Your task to perform on an android device: turn off translation in the chrome app Image 0: 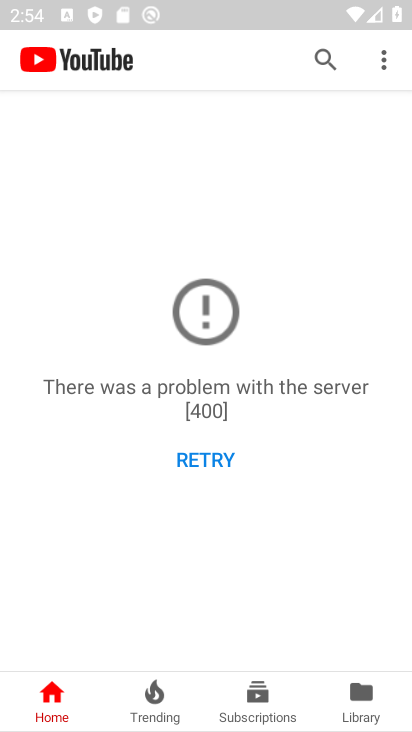
Step 0: press back button
Your task to perform on an android device: turn off translation in the chrome app Image 1: 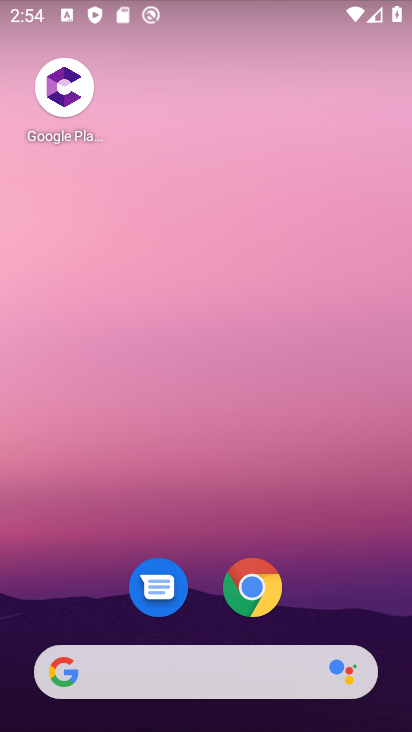
Step 1: drag from (227, 488) to (268, 57)
Your task to perform on an android device: turn off translation in the chrome app Image 2: 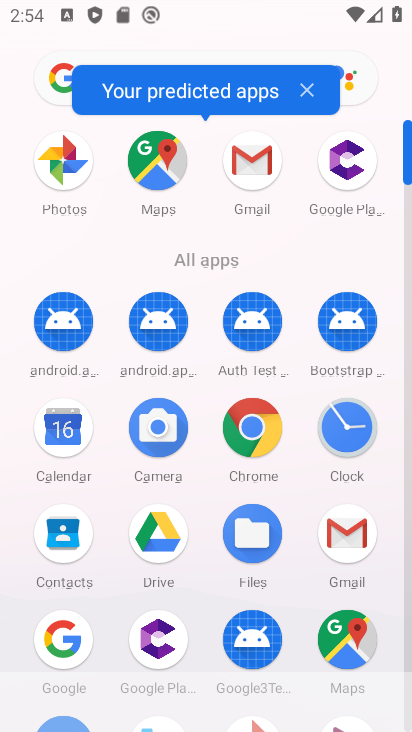
Step 2: click (256, 428)
Your task to perform on an android device: turn off translation in the chrome app Image 3: 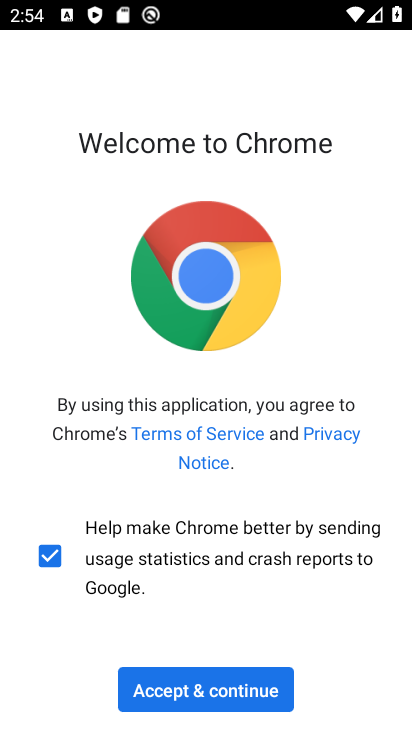
Step 3: click (198, 708)
Your task to perform on an android device: turn off translation in the chrome app Image 4: 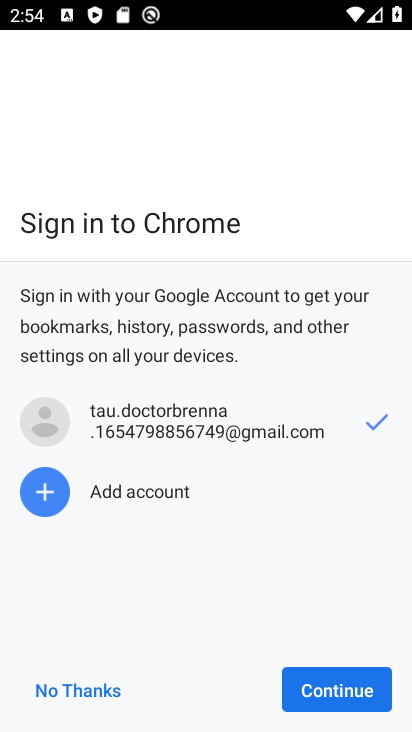
Step 4: click (317, 690)
Your task to perform on an android device: turn off translation in the chrome app Image 5: 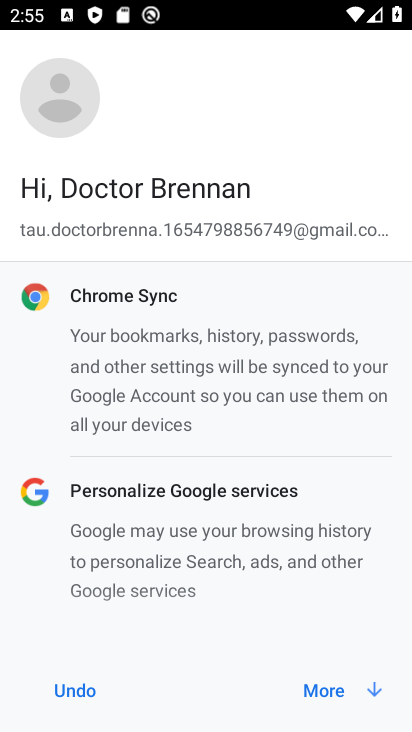
Step 5: click (344, 689)
Your task to perform on an android device: turn off translation in the chrome app Image 6: 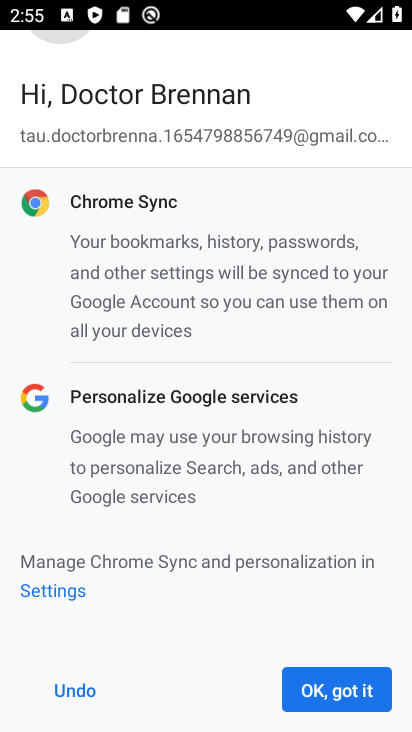
Step 6: click (332, 676)
Your task to perform on an android device: turn off translation in the chrome app Image 7: 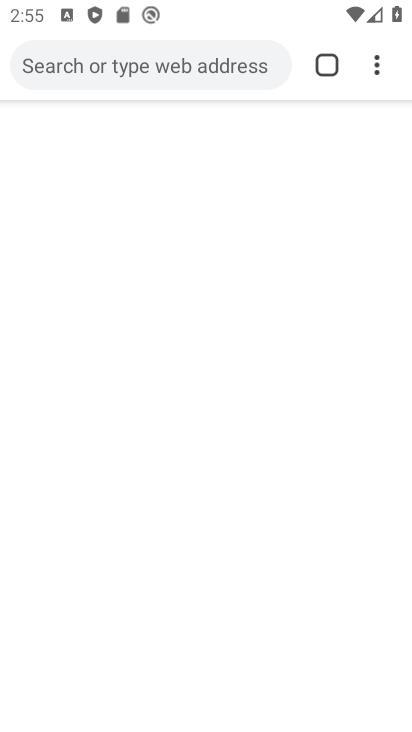
Step 7: click (375, 59)
Your task to perform on an android device: turn off translation in the chrome app Image 8: 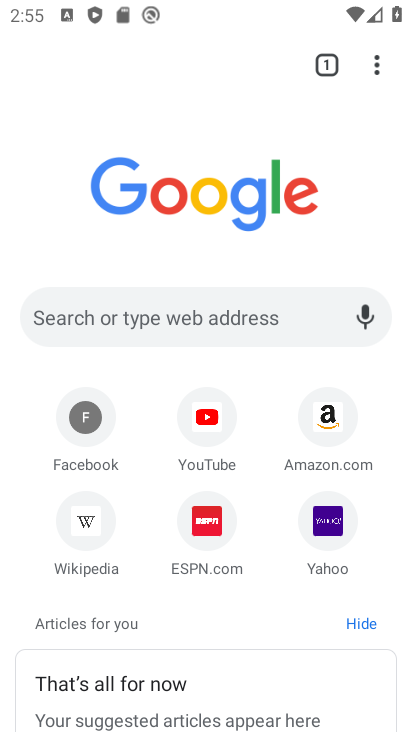
Step 8: drag from (375, 59) to (166, 545)
Your task to perform on an android device: turn off translation in the chrome app Image 9: 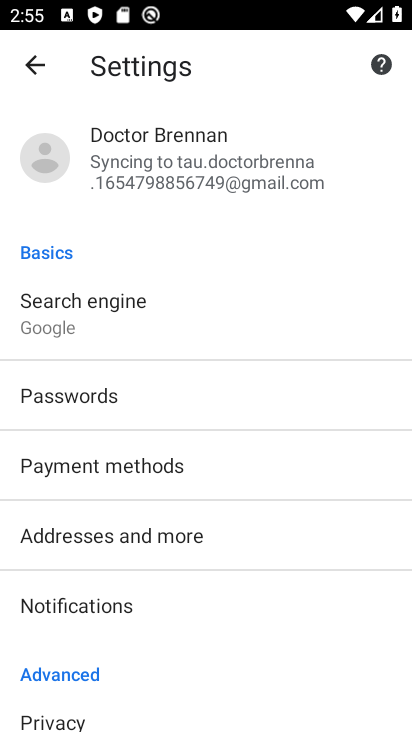
Step 9: drag from (126, 648) to (196, 209)
Your task to perform on an android device: turn off translation in the chrome app Image 10: 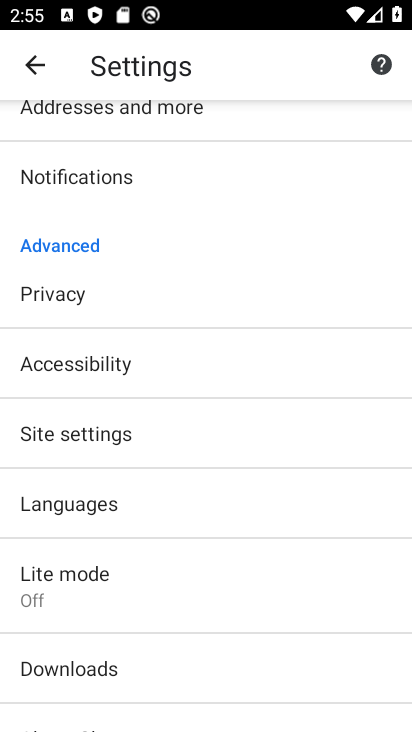
Step 10: click (80, 518)
Your task to perform on an android device: turn off translation in the chrome app Image 11: 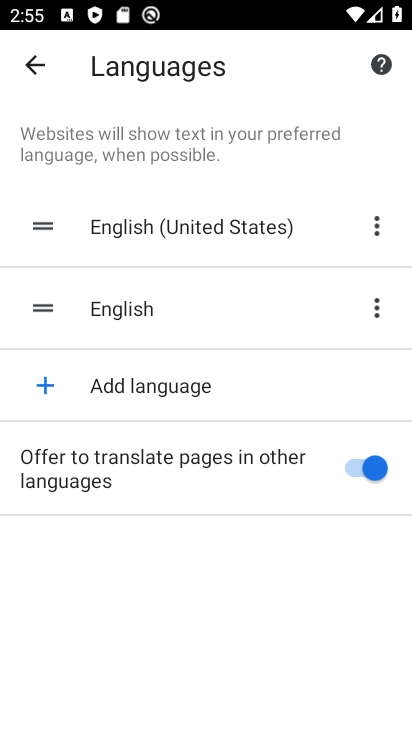
Step 11: click (367, 471)
Your task to perform on an android device: turn off translation in the chrome app Image 12: 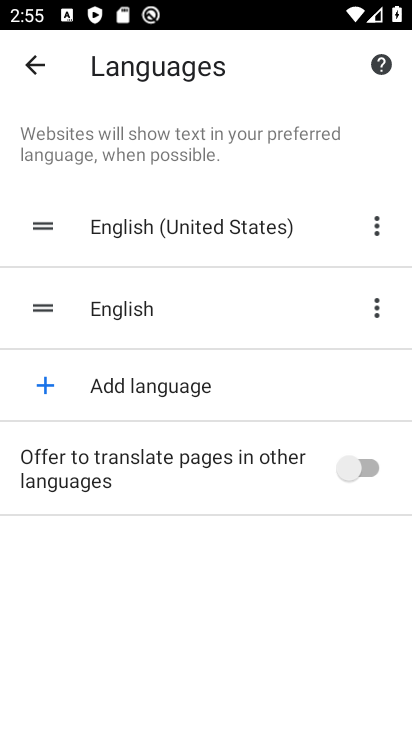
Step 12: task complete